Your task to perform on an android device: Go to location settings Image 0: 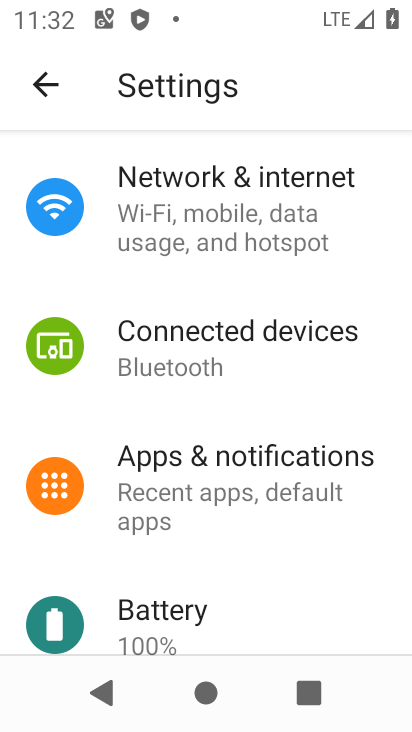
Step 0: drag from (218, 579) to (292, 40)
Your task to perform on an android device: Go to location settings Image 1: 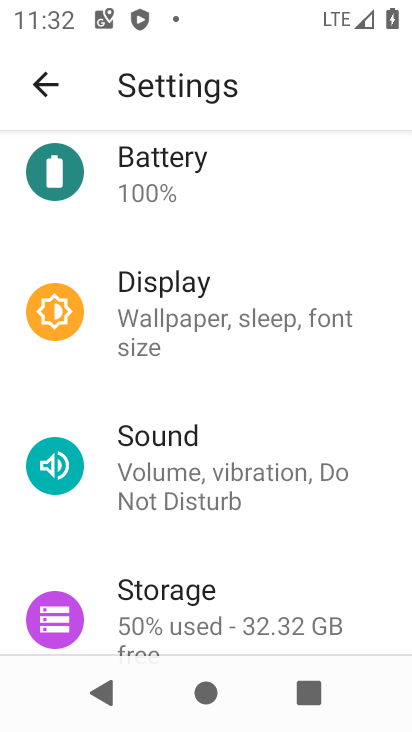
Step 1: drag from (206, 569) to (267, 139)
Your task to perform on an android device: Go to location settings Image 2: 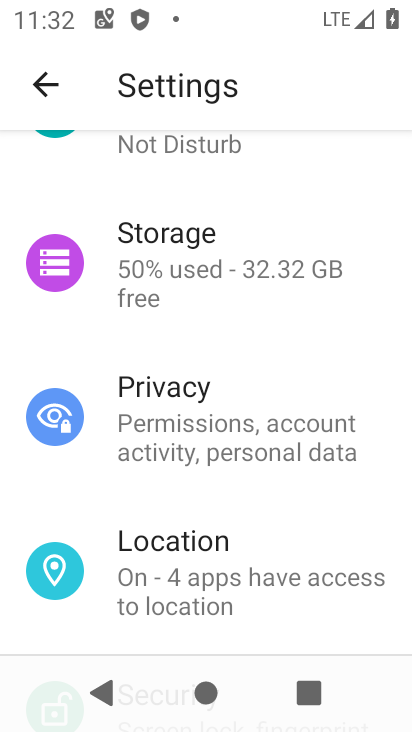
Step 2: click (218, 556)
Your task to perform on an android device: Go to location settings Image 3: 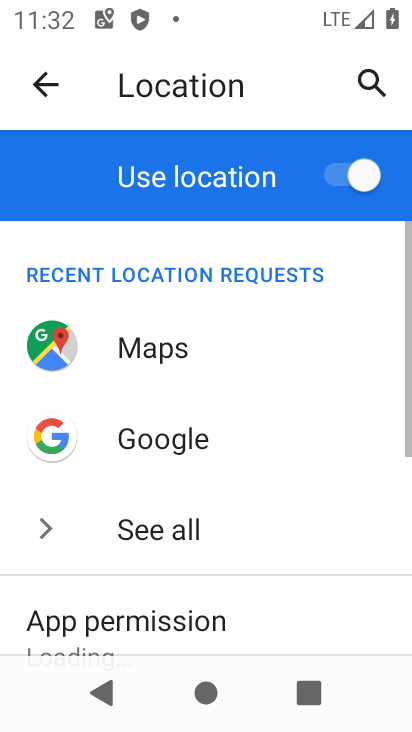
Step 3: task complete